Your task to perform on an android device: turn on location history Image 0: 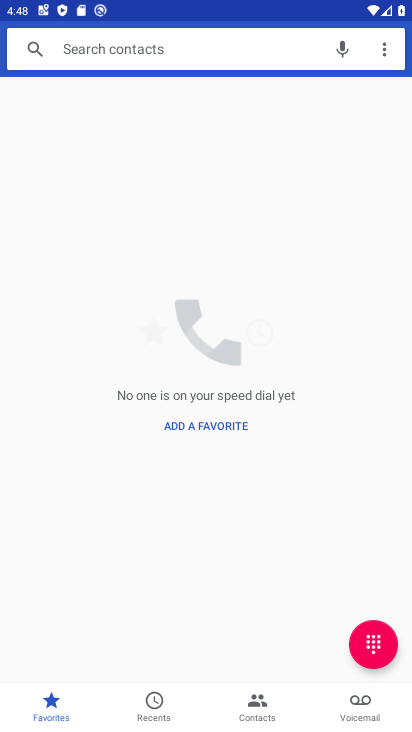
Step 0: press back button
Your task to perform on an android device: turn on location history Image 1: 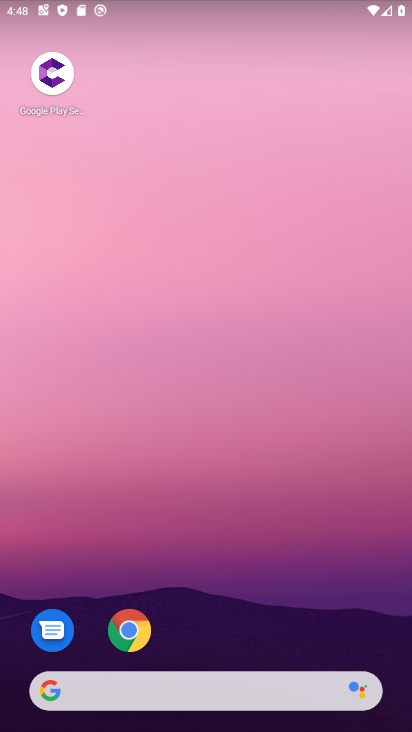
Step 1: drag from (208, 410) to (179, 35)
Your task to perform on an android device: turn on location history Image 2: 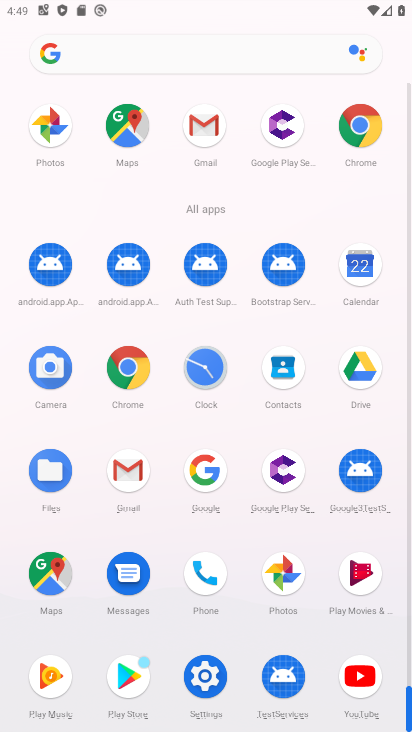
Step 2: drag from (2, 533) to (6, 249)
Your task to perform on an android device: turn on location history Image 3: 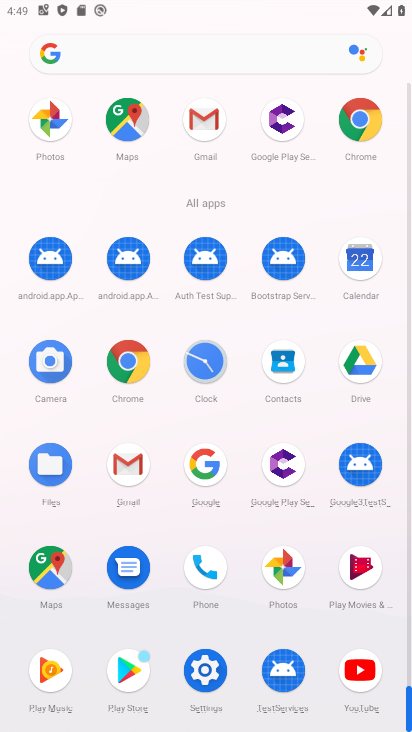
Step 3: click (206, 671)
Your task to perform on an android device: turn on location history Image 4: 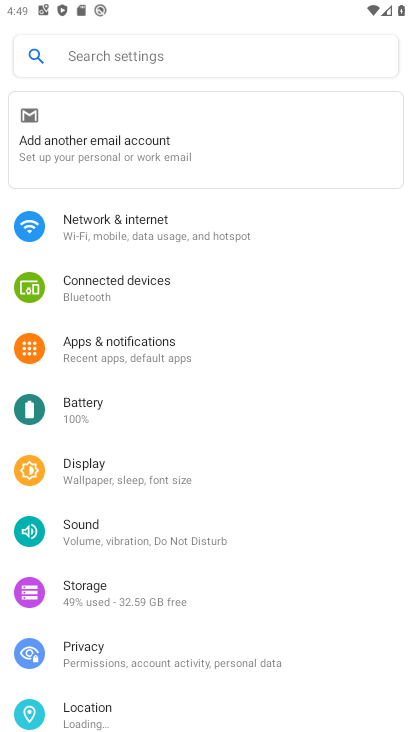
Step 4: drag from (294, 558) to (280, 134)
Your task to perform on an android device: turn on location history Image 5: 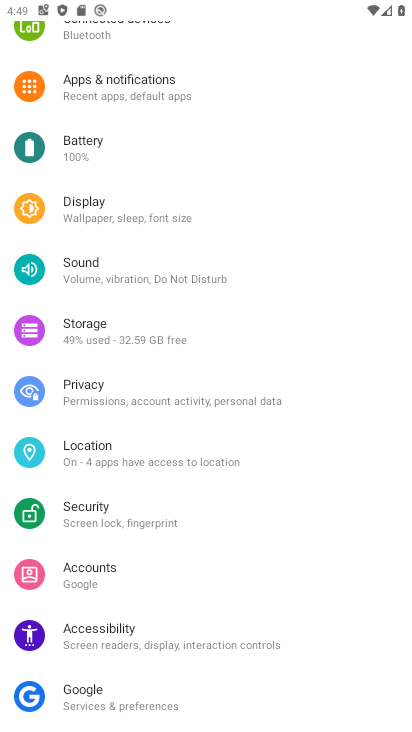
Step 5: click (141, 454)
Your task to perform on an android device: turn on location history Image 6: 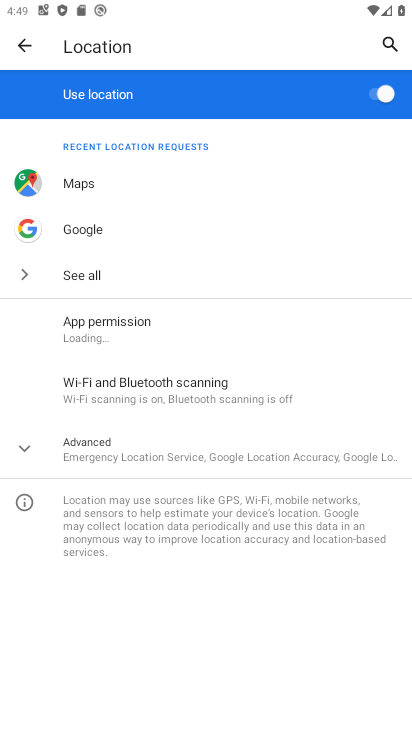
Step 6: click (123, 451)
Your task to perform on an android device: turn on location history Image 7: 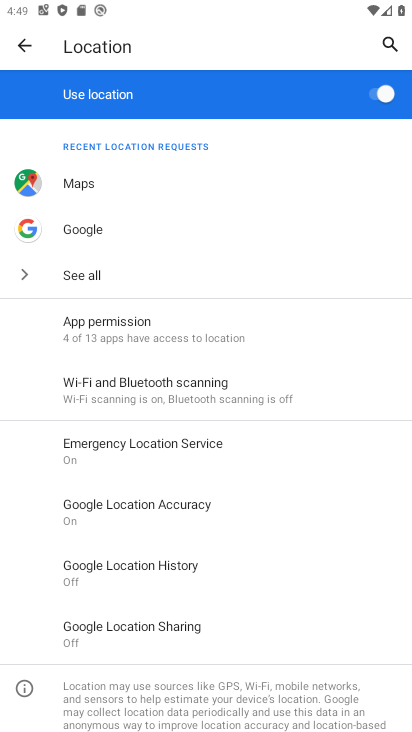
Step 7: click (206, 560)
Your task to perform on an android device: turn on location history Image 8: 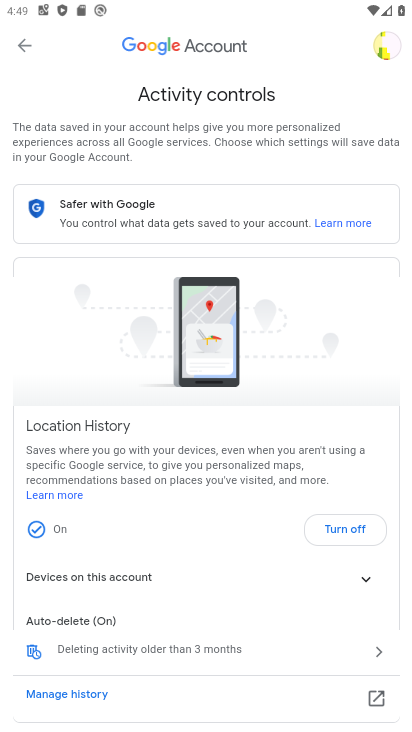
Step 8: drag from (199, 576) to (205, 94)
Your task to perform on an android device: turn on location history Image 9: 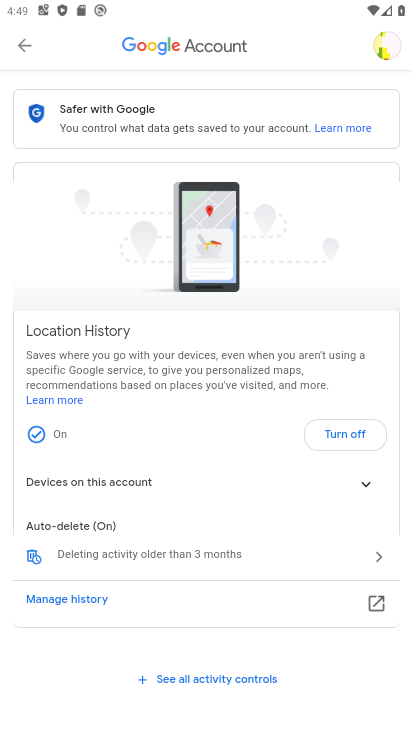
Step 9: drag from (157, 256) to (157, 545)
Your task to perform on an android device: turn on location history Image 10: 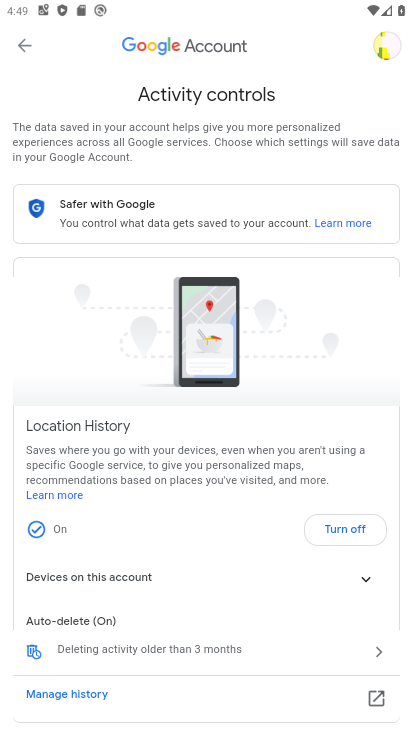
Step 10: click (25, 44)
Your task to perform on an android device: turn on location history Image 11: 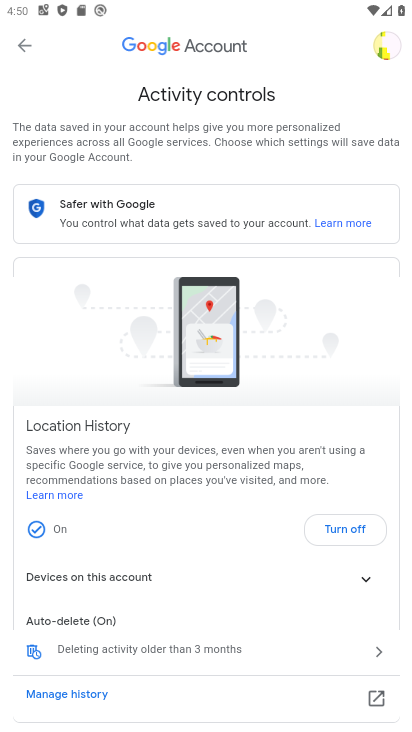
Step 11: click (24, 43)
Your task to perform on an android device: turn on location history Image 12: 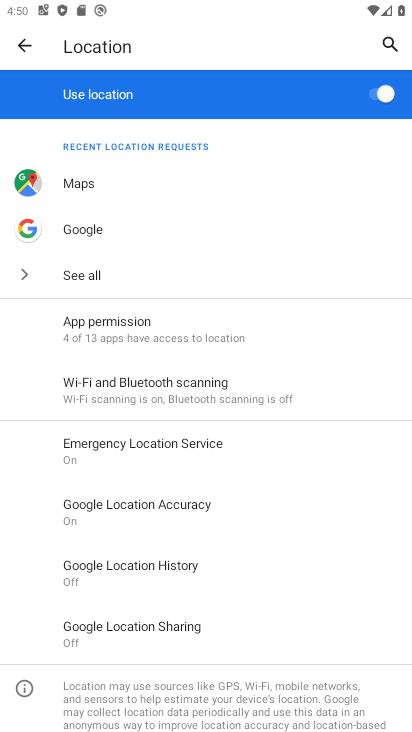
Step 12: click (176, 561)
Your task to perform on an android device: turn on location history Image 13: 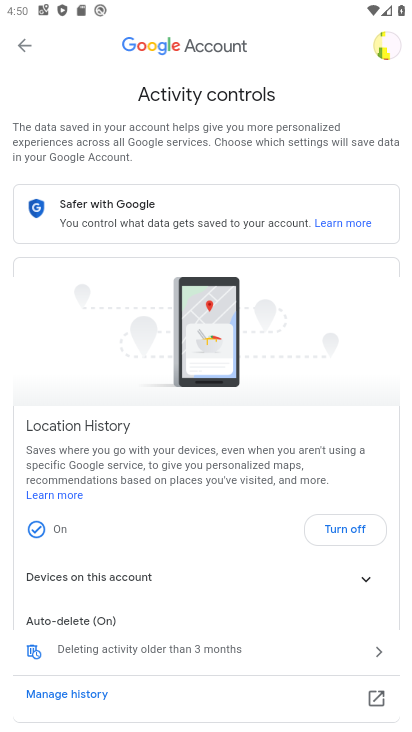
Step 13: task complete